Your task to perform on an android device: find snoozed emails in the gmail app Image 0: 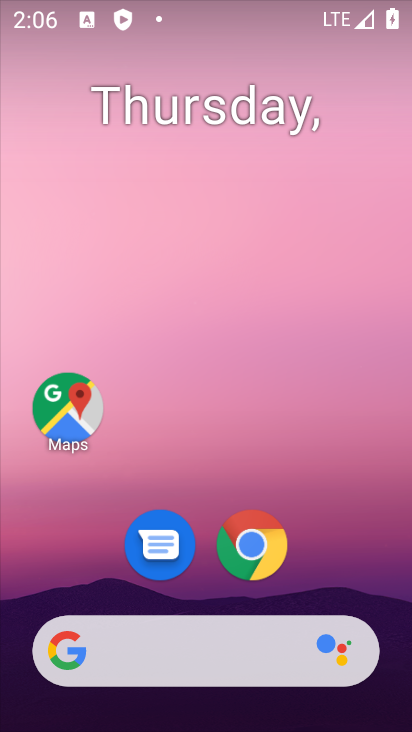
Step 0: drag from (264, 630) to (324, 6)
Your task to perform on an android device: find snoozed emails in the gmail app Image 1: 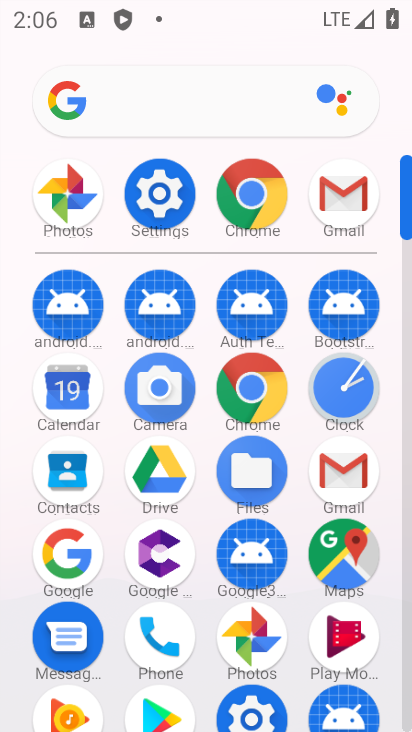
Step 1: click (350, 485)
Your task to perform on an android device: find snoozed emails in the gmail app Image 2: 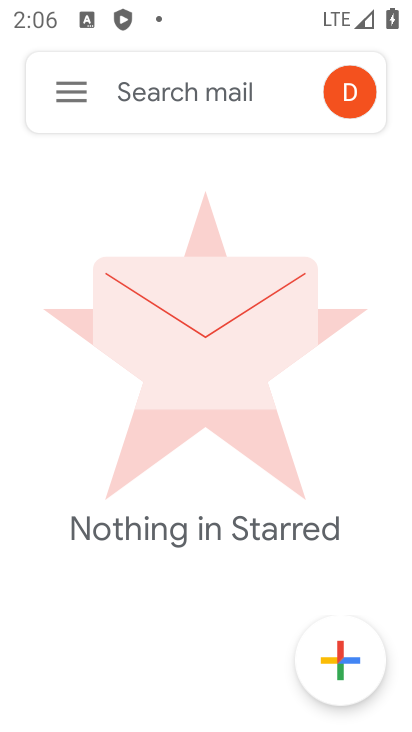
Step 2: click (74, 115)
Your task to perform on an android device: find snoozed emails in the gmail app Image 3: 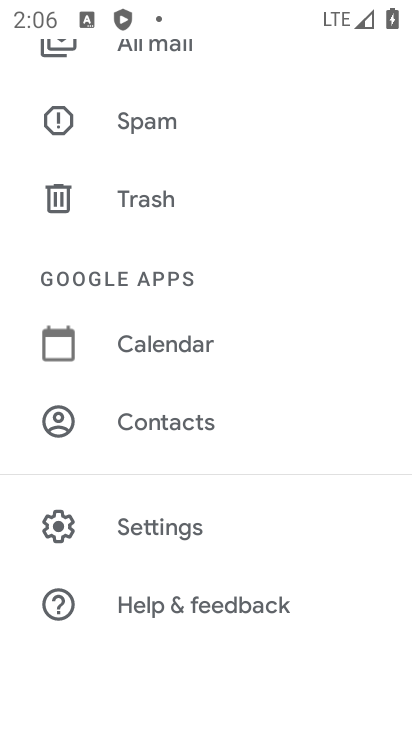
Step 3: drag from (194, 176) to (214, 729)
Your task to perform on an android device: find snoozed emails in the gmail app Image 4: 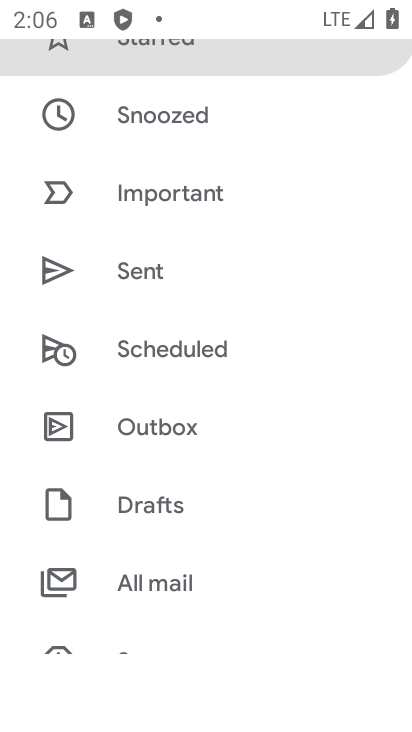
Step 4: click (185, 115)
Your task to perform on an android device: find snoozed emails in the gmail app Image 5: 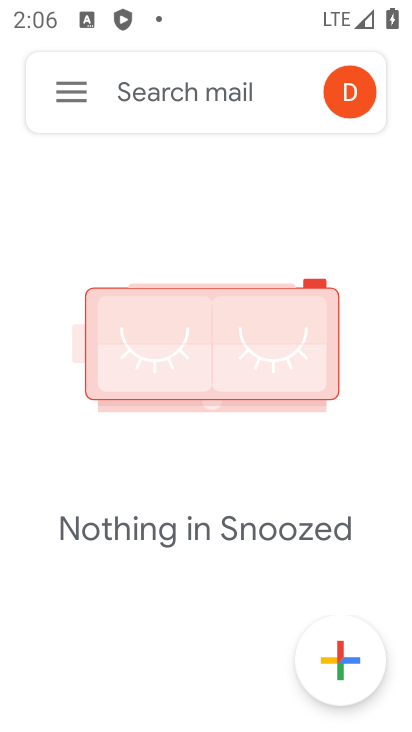
Step 5: task complete